Your task to perform on an android device: open a bookmark in the chrome app Image 0: 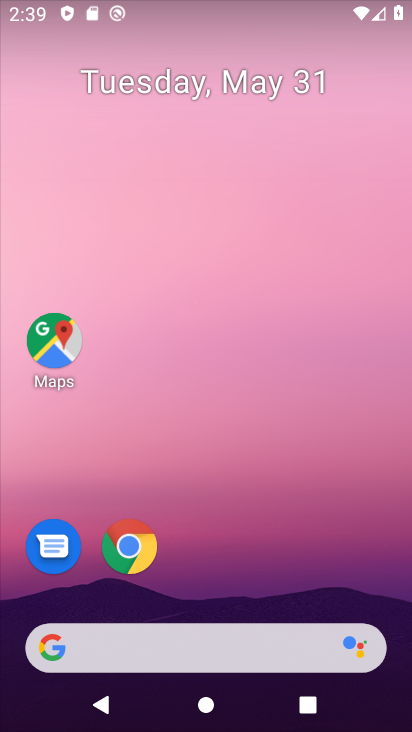
Step 0: click (131, 548)
Your task to perform on an android device: open a bookmark in the chrome app Image 1: 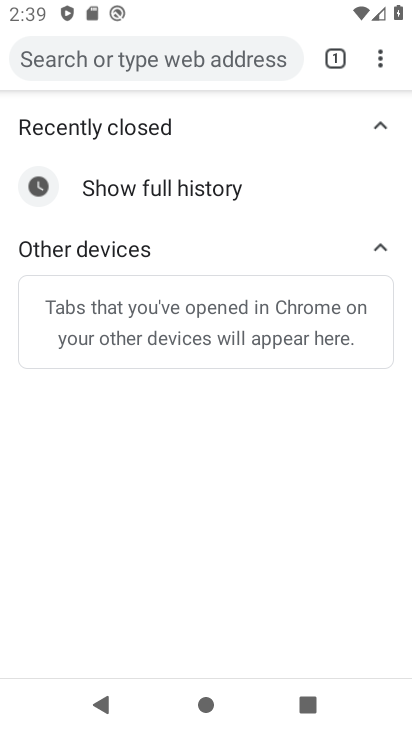
Step 1: click (379, 59)
Your task to perform on an android device: open a bookmark in the chrome app Image 2: 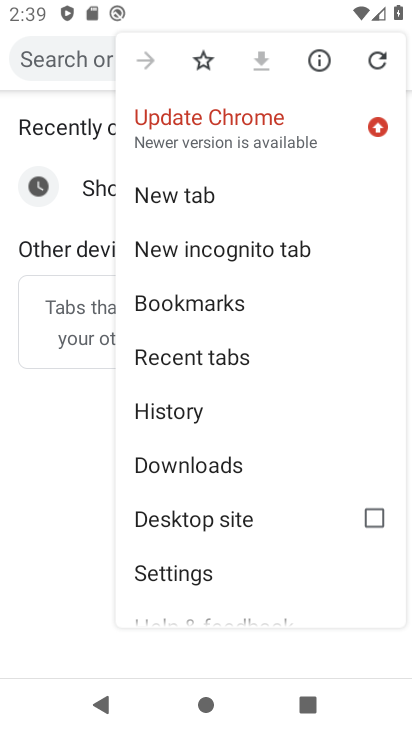
Step 2: click (248, 304)
Your task to perform on an android device: open a bookmark in the chrome app Image 3: 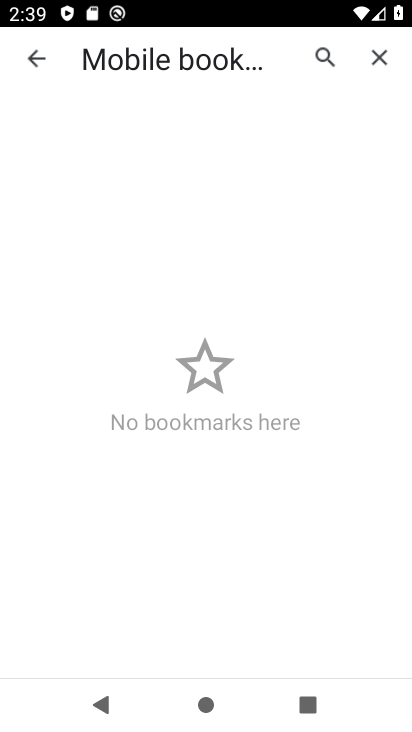
Step 3: task complete